Your task to perform on an android device: Open sound settings Image 0: 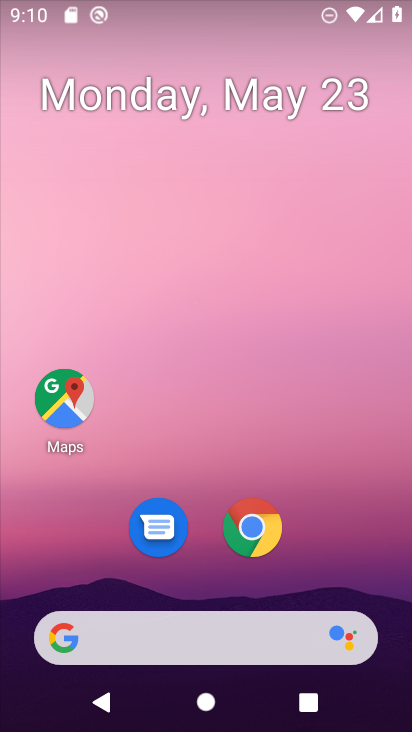
Step 0: drag from (228, 404) to (207, 0)
Your task to perform on an android device: Open sound settings Image 1: 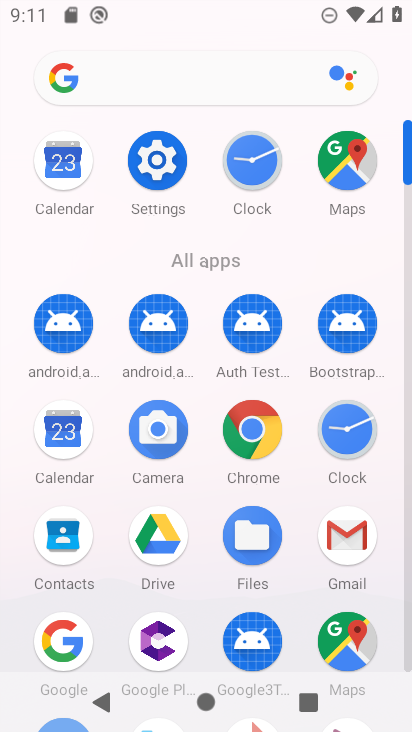
Step 1: click (165, 166)
Your task to perform on an android device: Open sound settings Image 2: 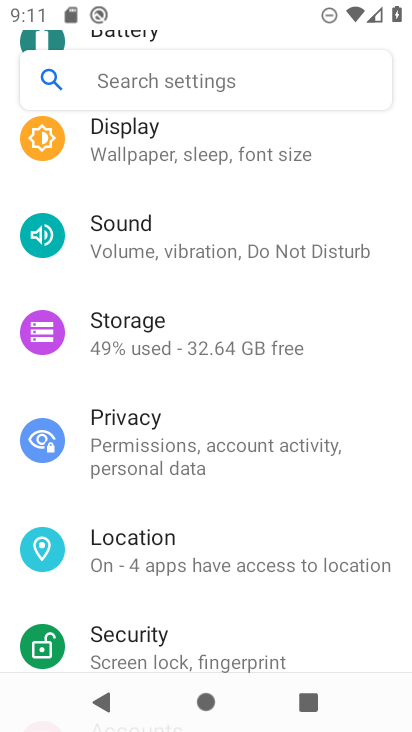
Step 2: click (181, 231)
Your task to perform on an android device: Open sound settings Image 3: 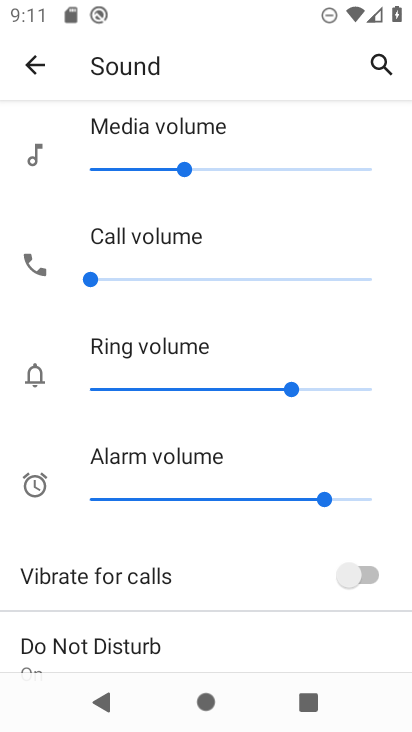
Step 3: task complete